Your task to perform on an android device: add a contact in the contacts app Image 0: 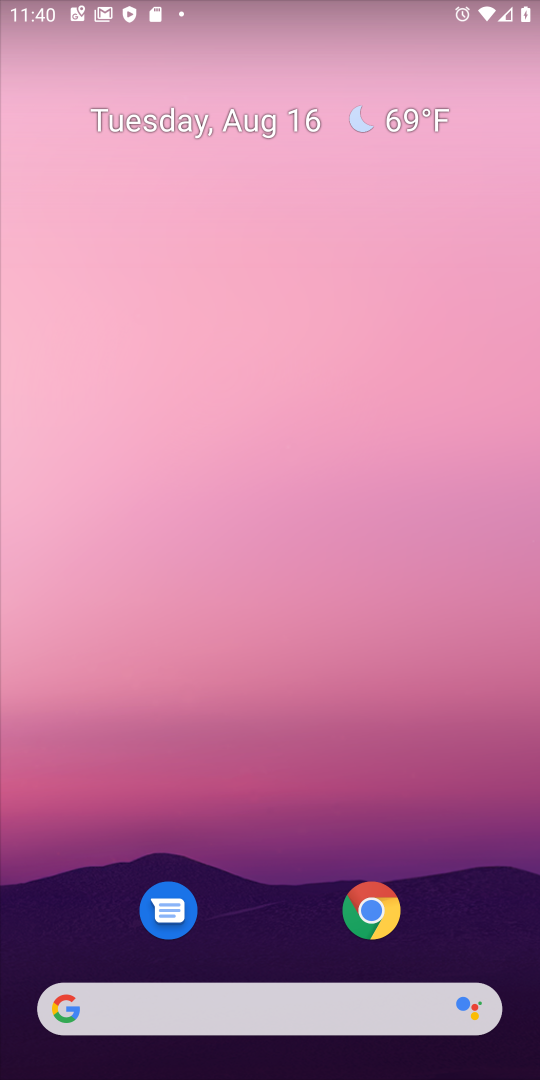
Step 0: drag from (275, 855) to (384, 67)
Your task to perform on an android device: add a contact in the contacts app Image 1: 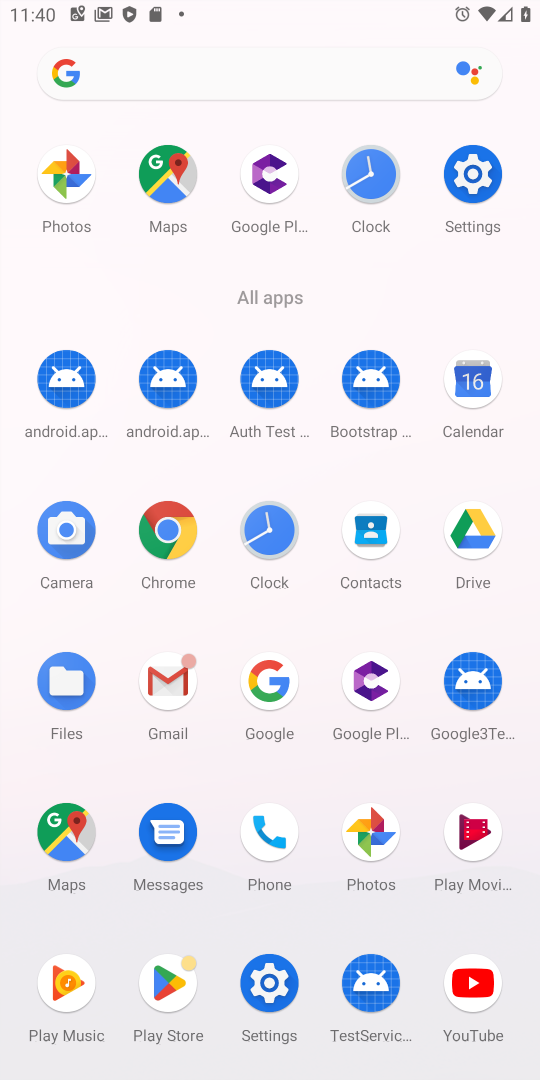
Step 1: click (377, 540)
Your task to perform on an android device: add a contact in the contacts app Image 2: 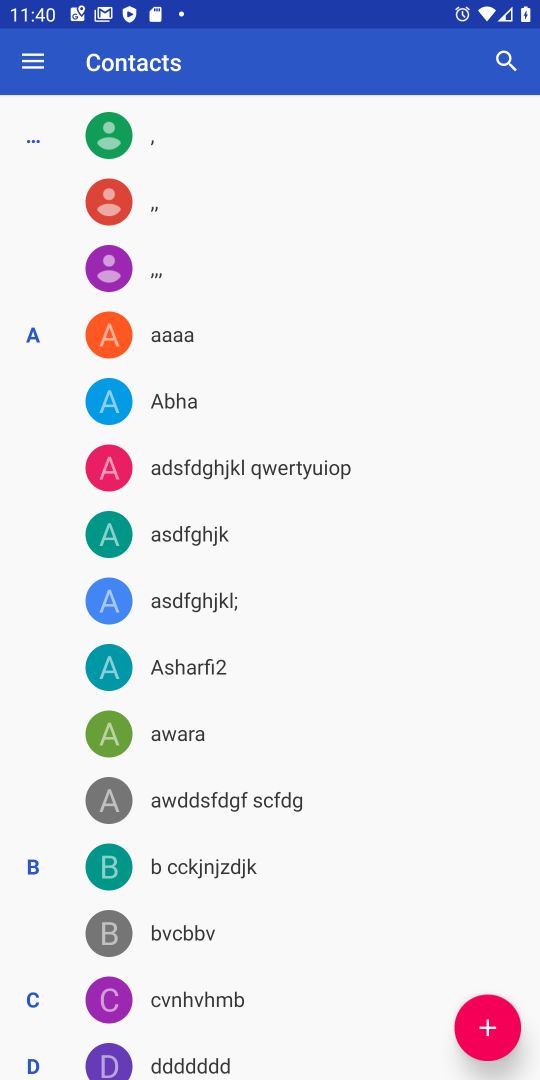
Step 2: click (490, 1021)
Your task to perform on an android device: add a contact in the contacts app Image 3: 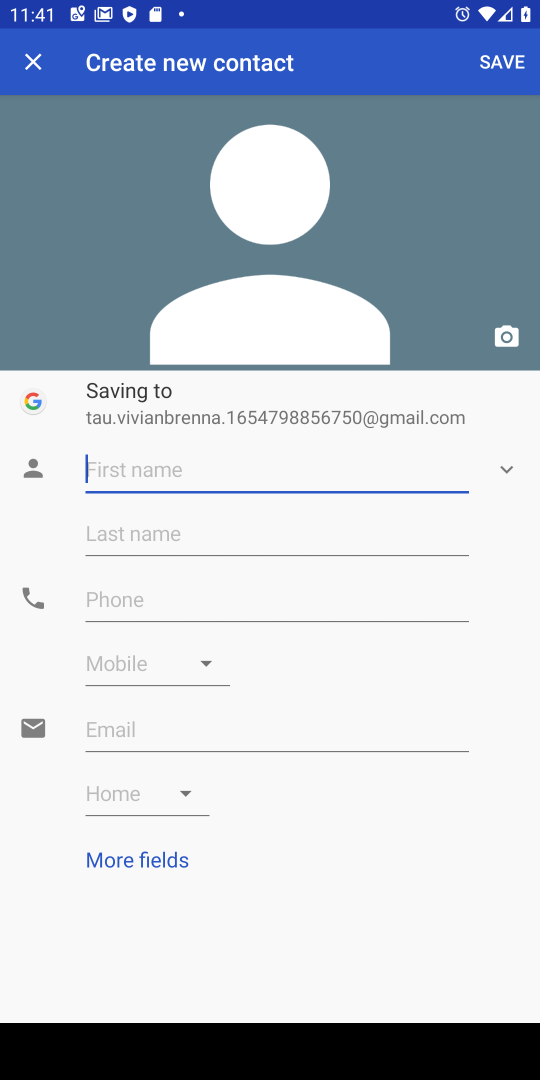
Step 3: type "opera"
Your task to perform on an android device: add a contact in the contacts app Image 4: 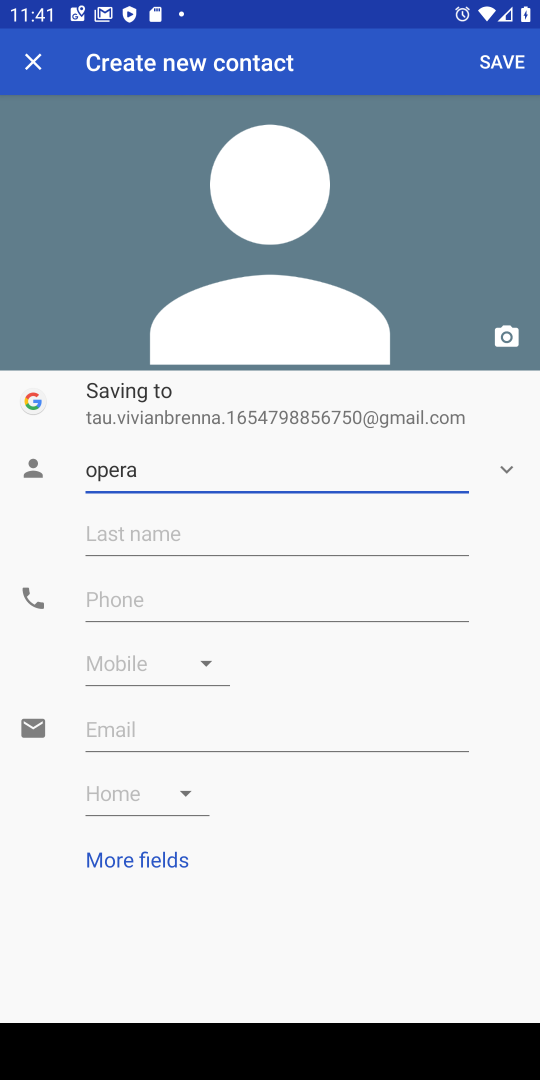
Step 4: click (516, 45)
Your task to perform on an android device: add a contact in the contacts app Image 5: 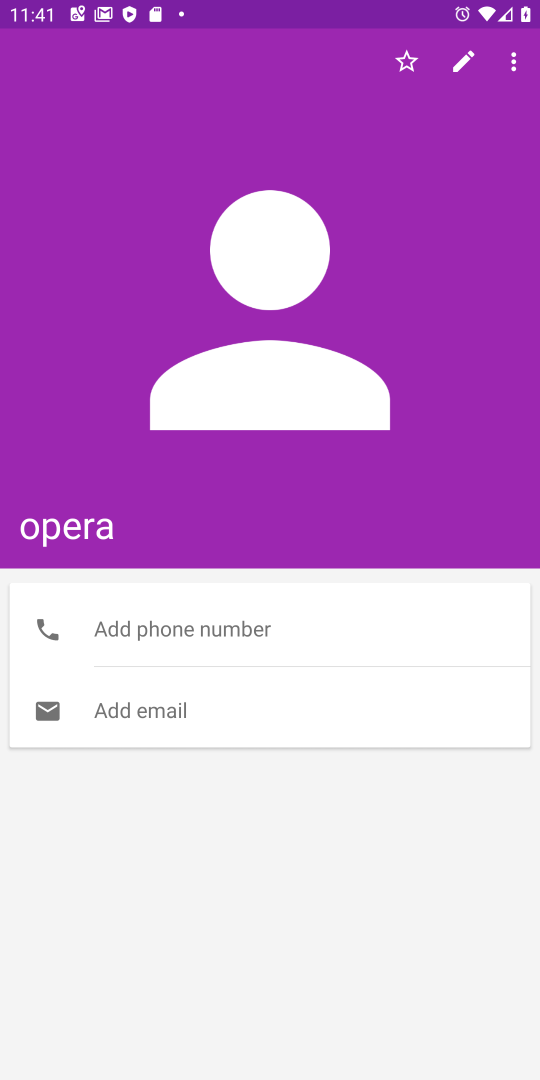
Step 5: task complete